Your task to perform on an android device: turn pop-ups off in chrome Image 0: 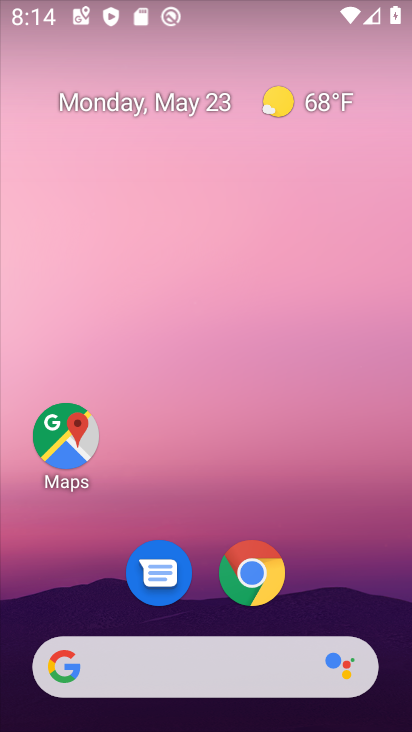
Step 0: drag from (240, 408) to (240, 90)
Your task to perform on an android device: turn pop-ups off in chrome Image 1: 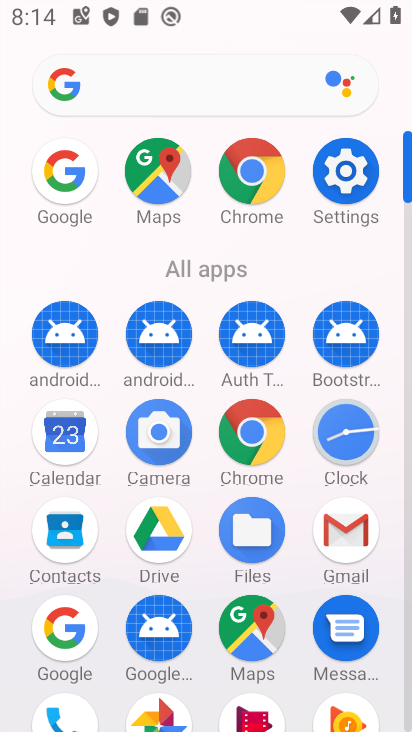
Step 1: click (255, 189)
Your task to perform on an android device: turn pop-ups off in chrome Image 2: 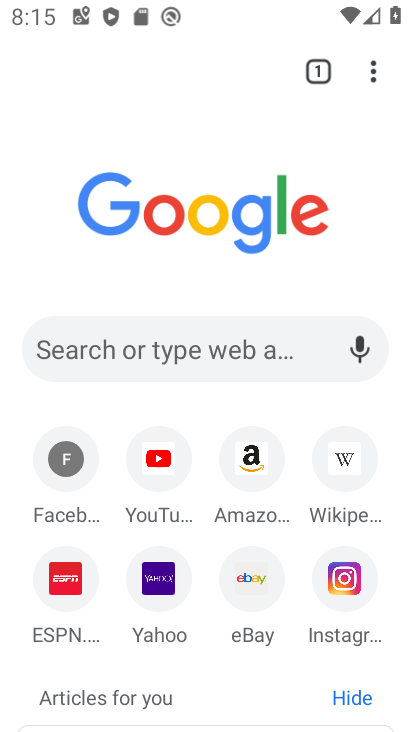
Step 2: click (371, 79)
Your task to perform on an android device: turn pop-ups off in chrome Image 3: 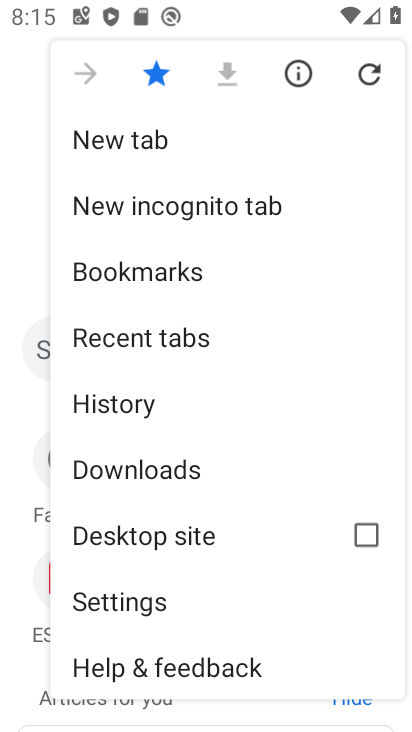
Step 3: drag from (212, 543) to (254, 183)
Your task to perform on an android device: turn pop-ups off in chrome Image 4: 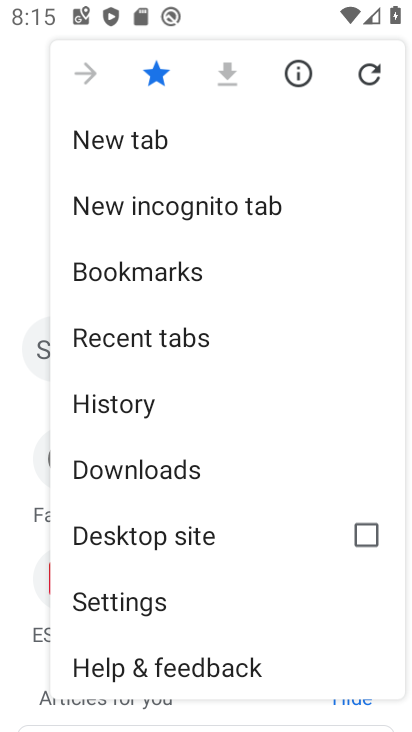
Step 4: click (137, 606)
Your task to perform on an android device: turn pop-ups off in chrome Image 5: 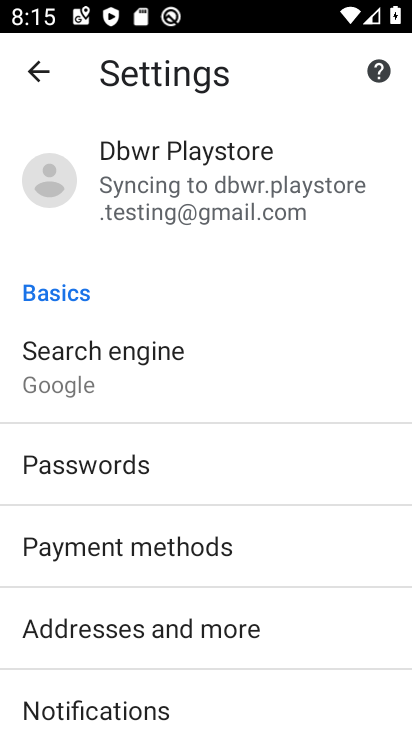
Step 5: drag from (225, 573) to (245, 189)
Your task to perform on an android device: turn pop-ups off in chrome Image 6: 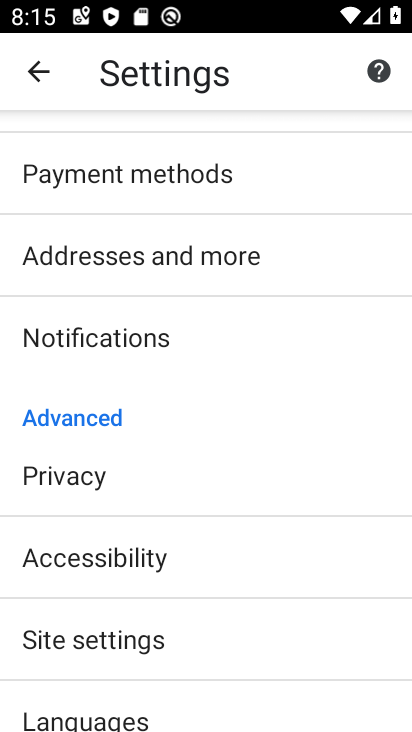
Step 6: drag from (222, 556) to (224, 247)
Your task to perform on an android device: turn pop-ups off in chrome Image 7: 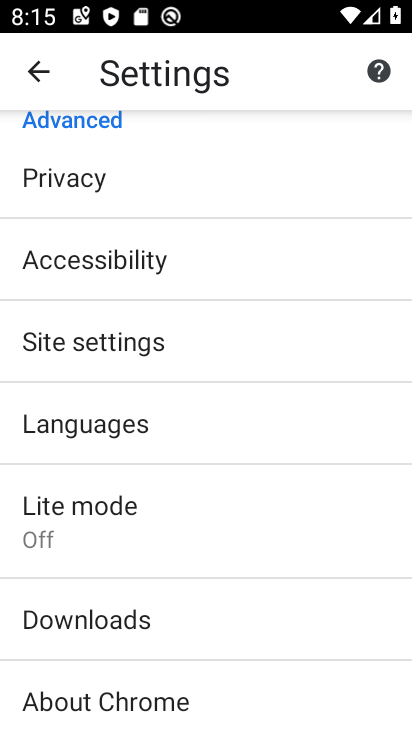
Step 7: drag from (196, 558) to (216, 129)
Your task to perform on an android device: turn pop-ups off in chrome Image 8: 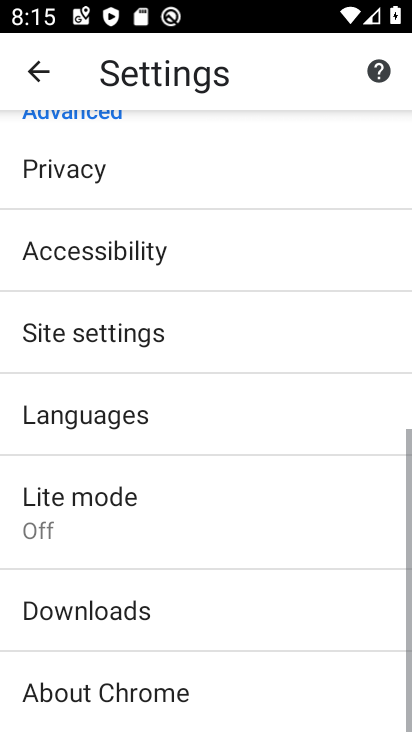
Step 8: drag from (196, 535) to (220, 199)
Your task to perform on an android device: turn pop-ups off in chrome Image 9: 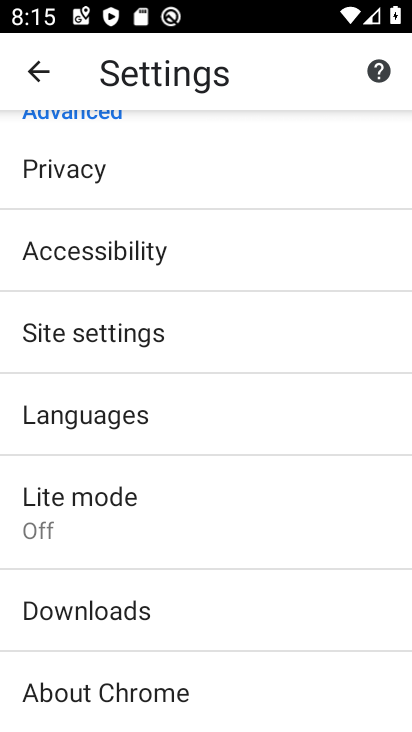
Step 9: click (115, 324)
Your task to perform on an android device: turn pop-ups off in chrome Image 10: 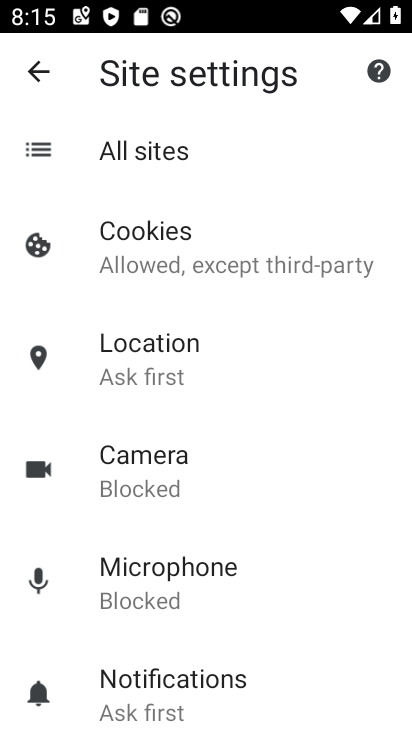
Step 10: drag from (201, 582) to (218, 268)
Your task to perform on an android device: turn pop-ups off in chrome Image 11: 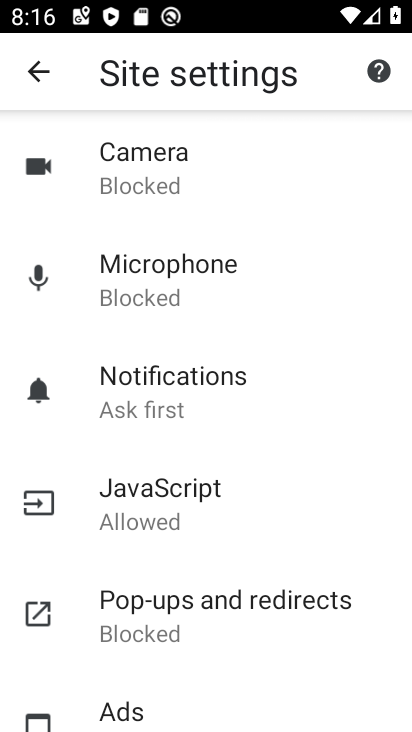
Step 11: click (211, 603)
Your task to perform on an android device: turn pop-ups off in chrome Image 12: 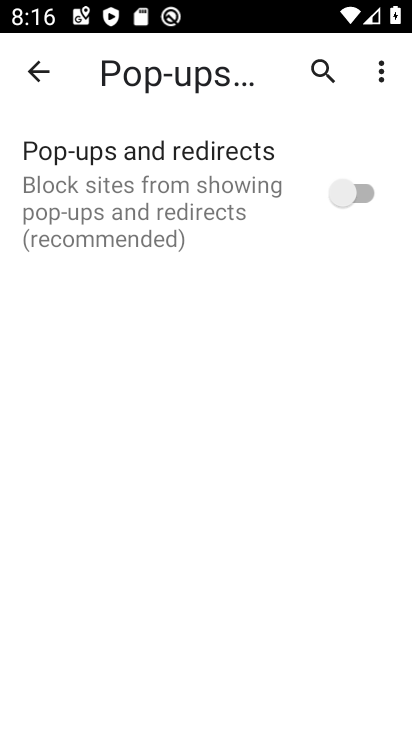
Step 12: task complete